Your task to perform on an android device: Go to wifi settings Image 0: 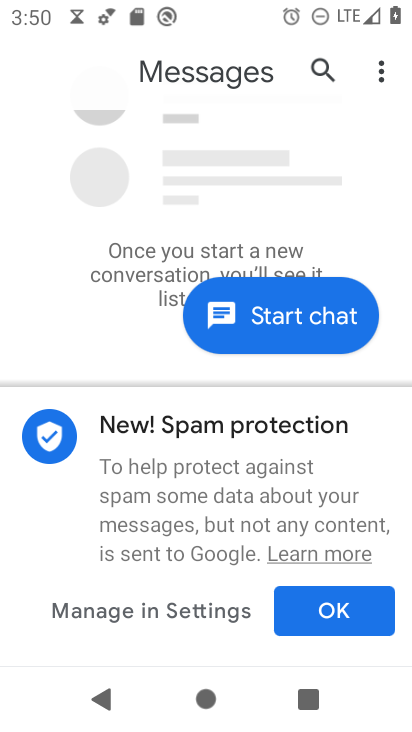
Step 0: press home button
Your task to perform on an android device: Go to wifi settings Image 1: 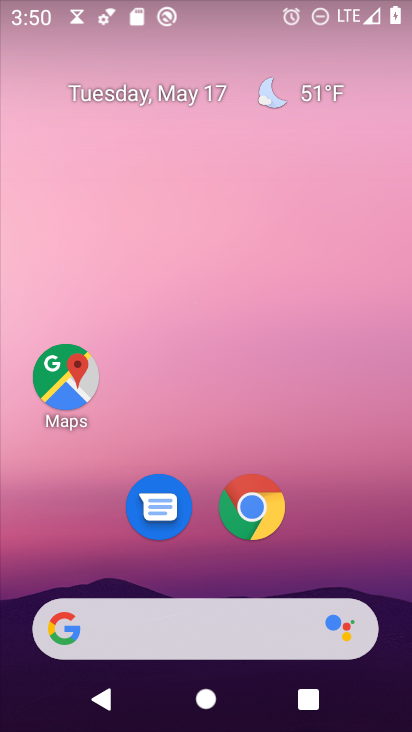
Step 1: drag from (332, 551) to (246, 56)
Your task to perform on an android device: Go to wifi settings Image 2: 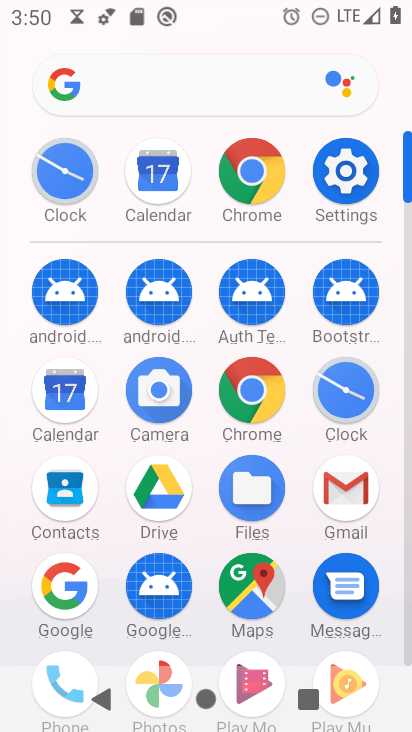
Step 2: click (337, 165)
Your task to perform on an android device: Go to wifi settings Image 3: 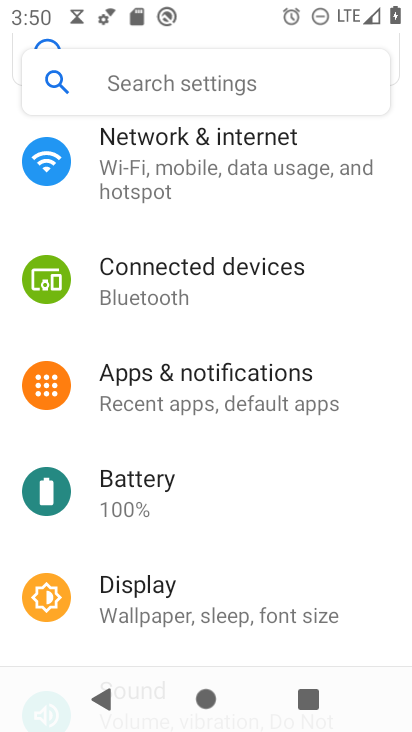
Step 3: drag from (206, 280) to (270, 511)
Your task to perform on an android device: Go to wifi settings Image 4: 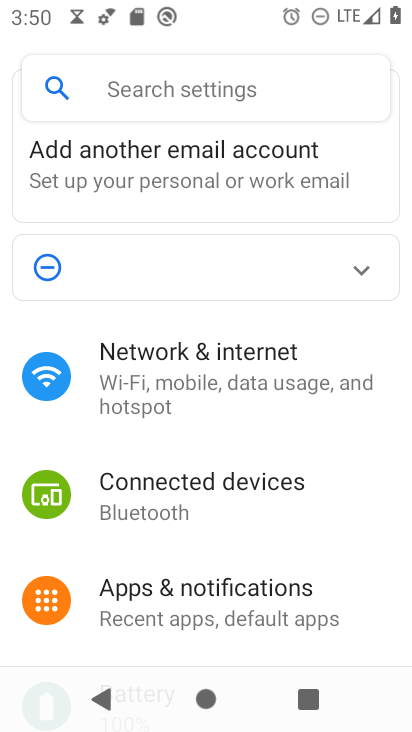
Step 4: click (230, 363)
Your task to perform on an android device: Go to wifi settings Image 5: 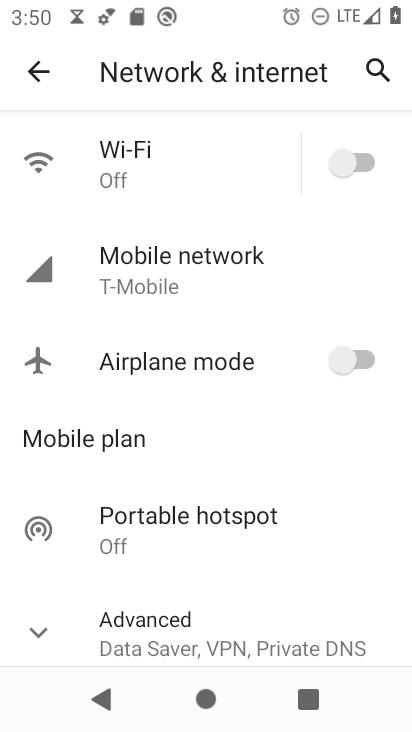
Step 5: click (129, 157)
Your task to perform on an android device: Go to wifi settings Image 6: 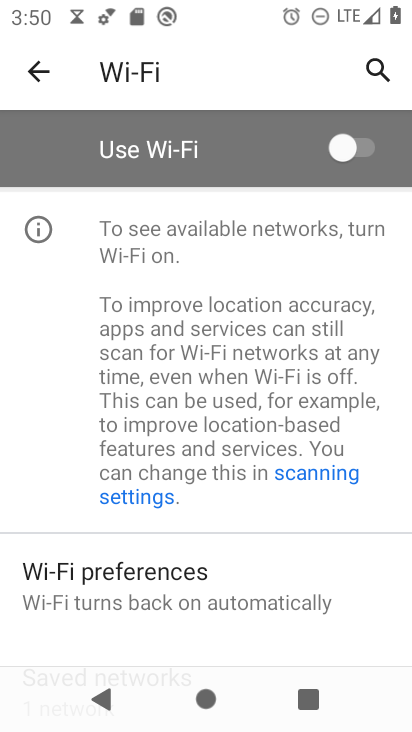
Step 6: task complete